Your task to perform on an android device: turn off data saver in the chrome app Image 0: 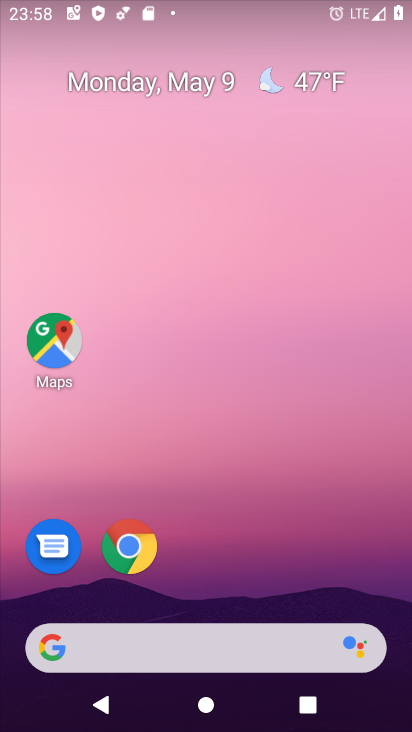
Step 0: click (135, 549)
Your task to perform on an android device: turn off data saver in the chrome app Image 1: 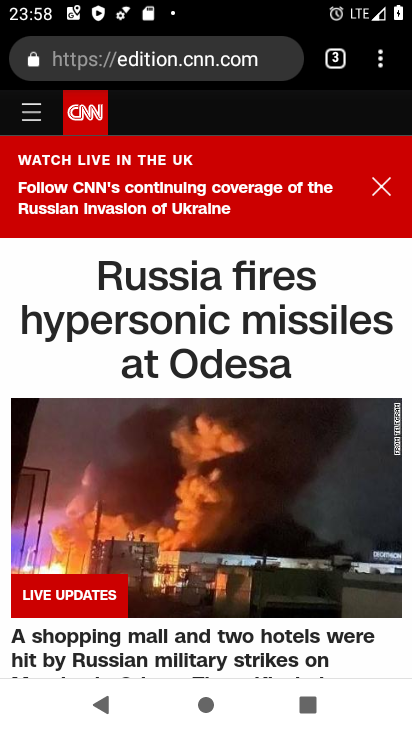
Step 1: drag from (384, 59) to (188, 579)
Your task to perform on an android device: turn off data saver in the chrome app Image 2: 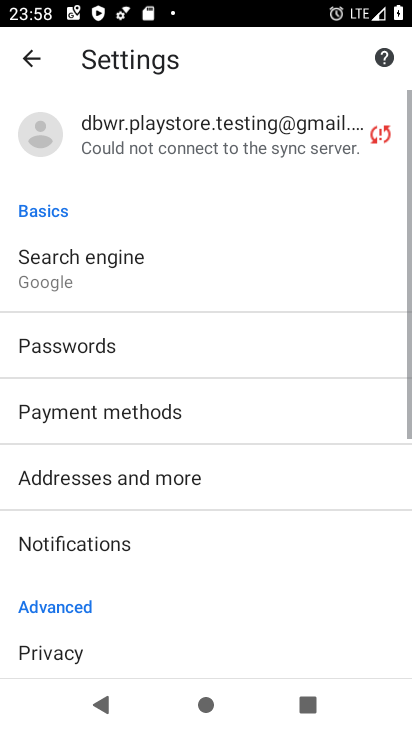
Step 2: drag from (188, 579) to (199, 231)
Your task to perform on an android device: turn off data saver in the chrome app Image 3: 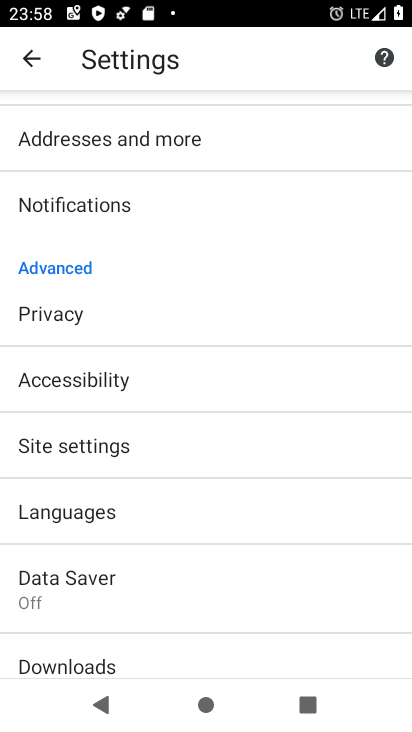
Step 3: click (97, 578)
Your task to perform on an android device: turn off data saver in the chrome app Image 4: 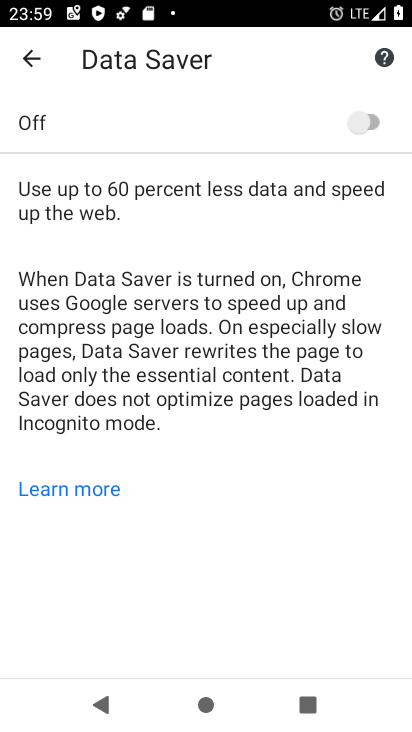
Step 4: task complete